Your task to perform on an android device: Open the calendar app, open the side menu, and click the "Day" option Image 0: 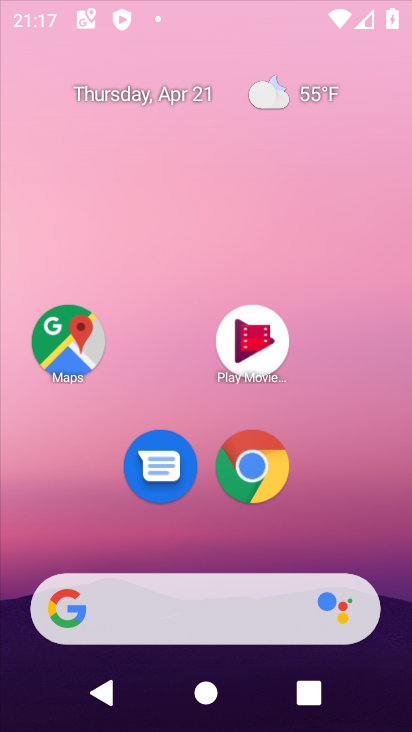
Step 0: click (287, 12)
Your task to perform on an android device: Open the calendar app, open the side menu, and click the "Day" option Image 1: 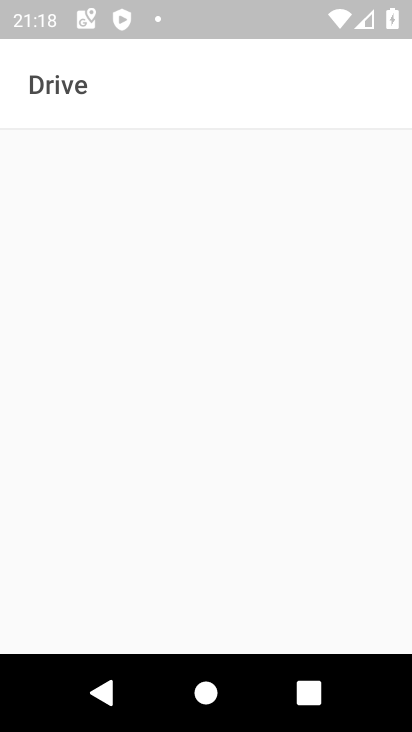
Step 1: press home button
Your task to perform on an android device: Open the calendar app, open the side menu, and click the "Day" option Image 2: 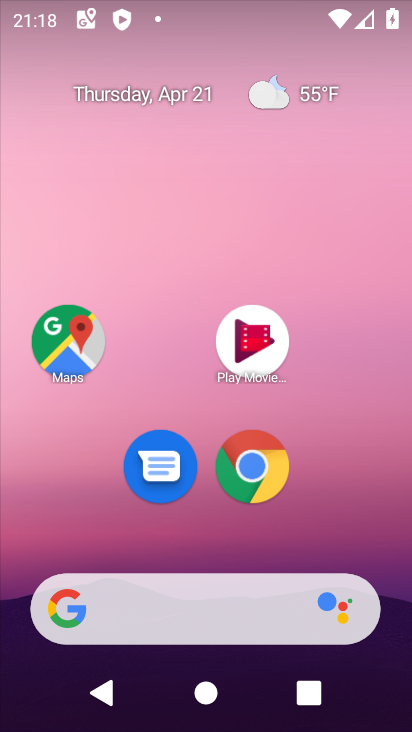
Step 2: drag from (315, 514) to (316, 125)
Your task to perform on an android device: Open the calendar app, open the side menu, and click the "Day" option Image 3: 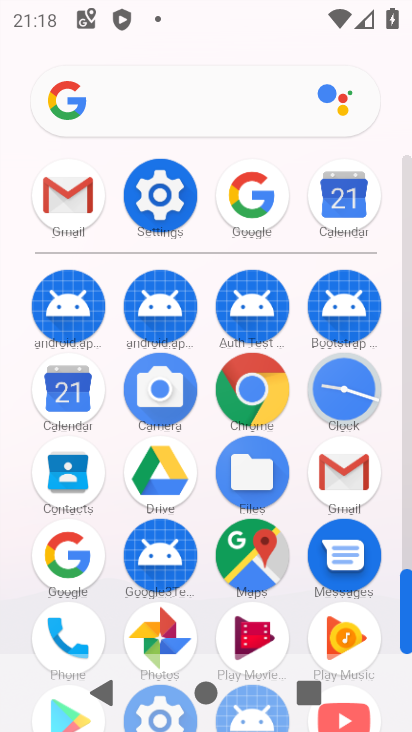
Step 3: click (72, 409)
Your task to perform on an android device: Open the calendar app, open the side menu, and click the "Day" option Image 4: 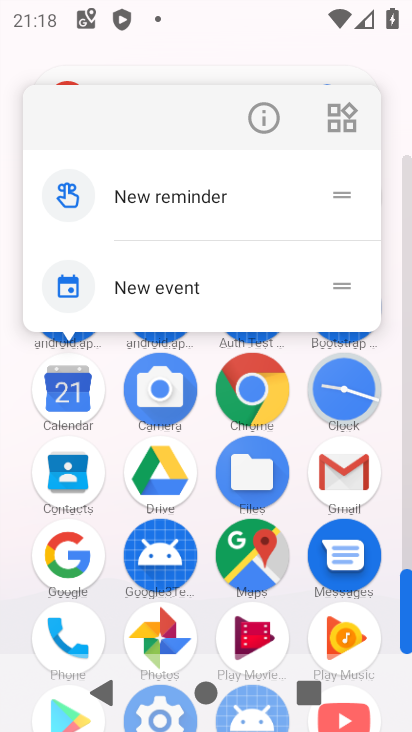
Step 4: click (67, 403)
Your task to perform on an android device: Open the calendar app, open the side menu, and click the "Day" option Image 5: 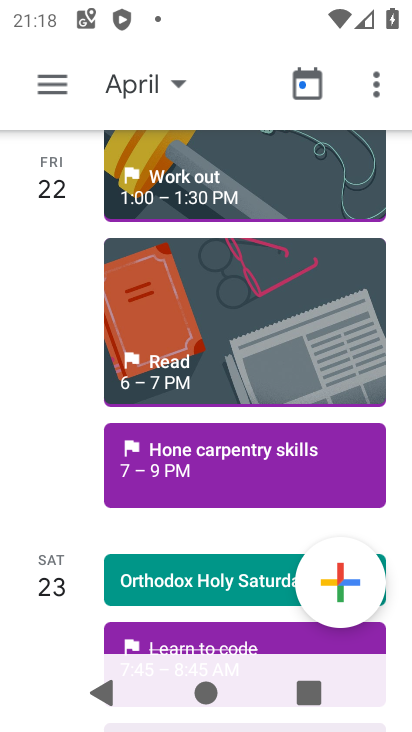
Step 5: click (49, 96)
Your task to perform on an android device: Open the calendar app, open the side menu, and click the "Day" option Image 6: 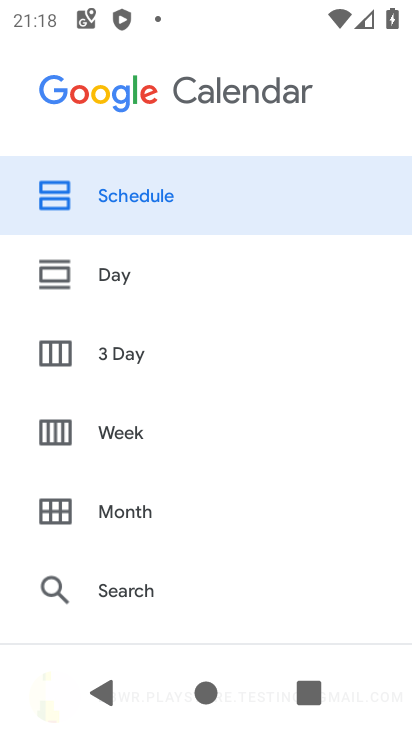
Step 6: click (150, 283)
Your task to perform on an android device: Open the calendar app, open the side menu, and click the "Day" option Image 7: 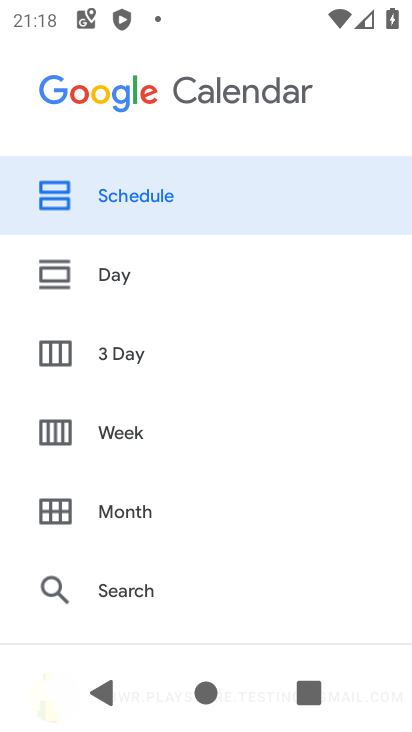
Step 7: click (122, 283)
Your task to perform on an android device: Open the calendar app, open the side menu, and click the "Day" option Image 8: 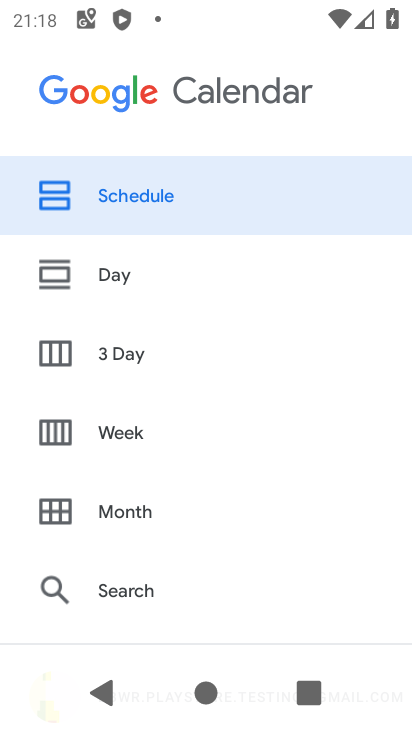
Step 8: click (110, 277)
Your task to perform on an android device: Open the calendar app, open the side menu, and click the "Day" option Image 9: 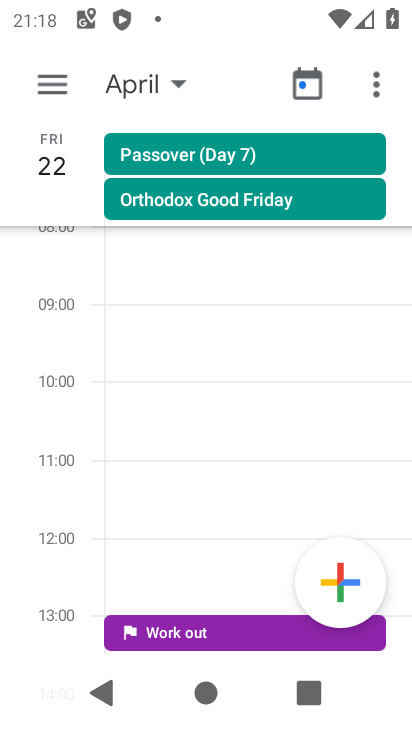
Step 9: task complete